Your task to perform on an android device: turn smart compose on in the gmail app Image 0: 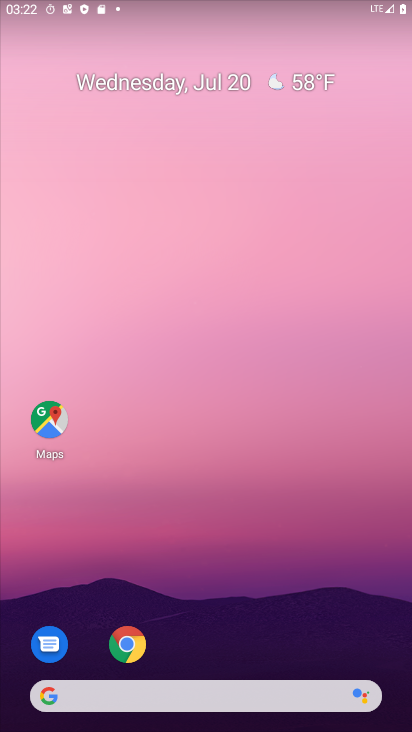
Step 0: drag from (19, 705) to (119, 327)
Your task to perform on an android device: turn smart compose on in the gmail app Image 1: 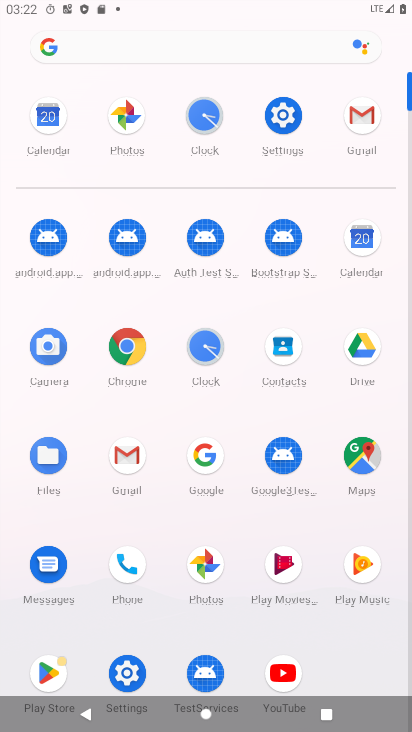
Step 1: click (131, 464)
Your task to perform on an android device: turn smart compose on in the gmail app Image 2: 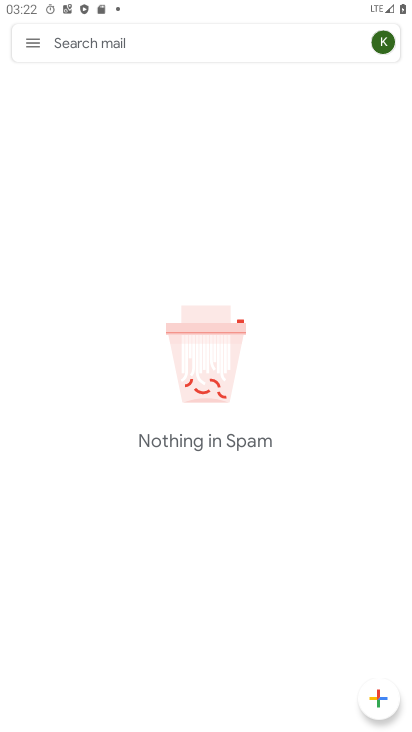
Step 2: click (39, 38)
Your task to perform on an android device: turn smart compose on in the gmail app Image 3: 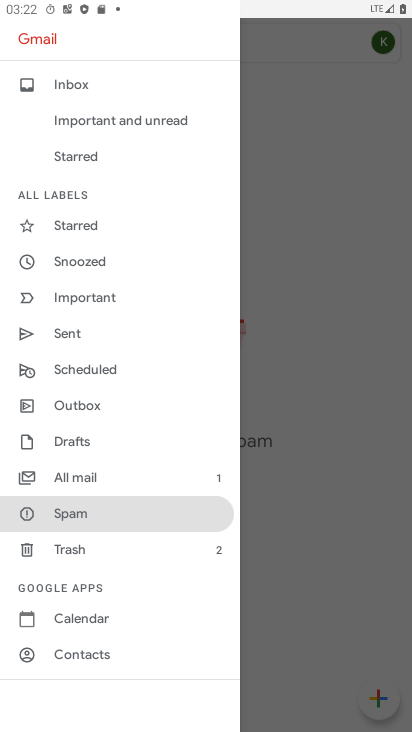
Step 3: drag from (155, 681) to (157, 371)
Your task to perform on an android device: turn smart compose on in the gmail app Image 4: 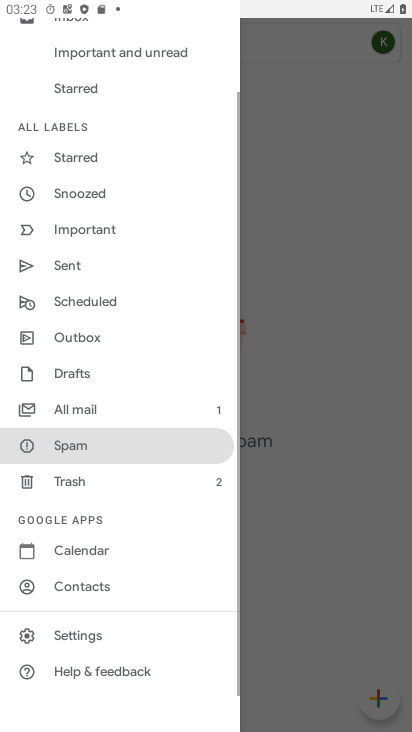
Step 4: click (72, 639)
Your task to perform on an android device: turn smart compose on in the gmail app Image 5: 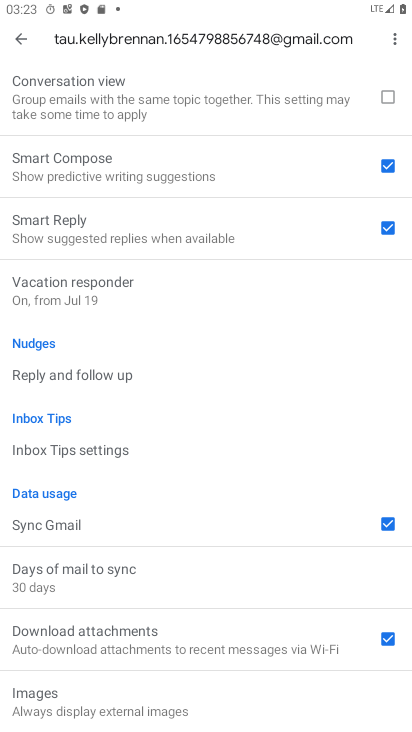
Step 5: click (233, 401)
Your task to perform on an android device: turn smart compose on in the gmail app Image 6: 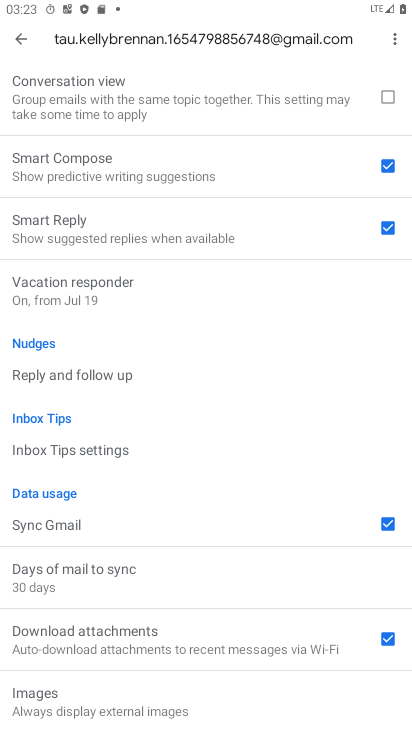
Step 6: task complete